Your task to perform on an android device: What's the weather going to be tomorrow? Image 0: 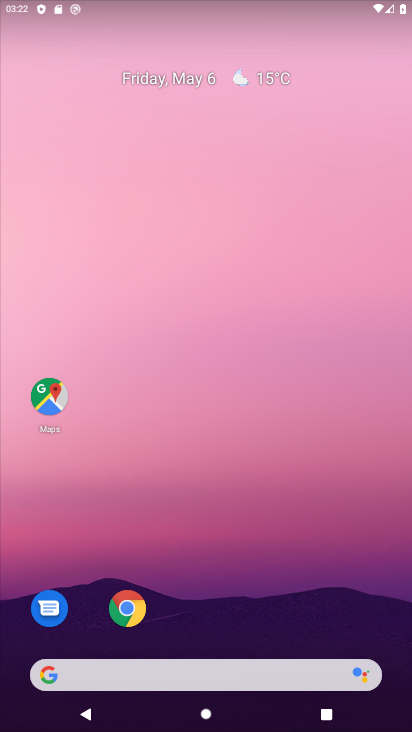
Step 0: click (262, 80)
Your task to perform on an android device: What's the weather going to be tomorrow? Image 1: 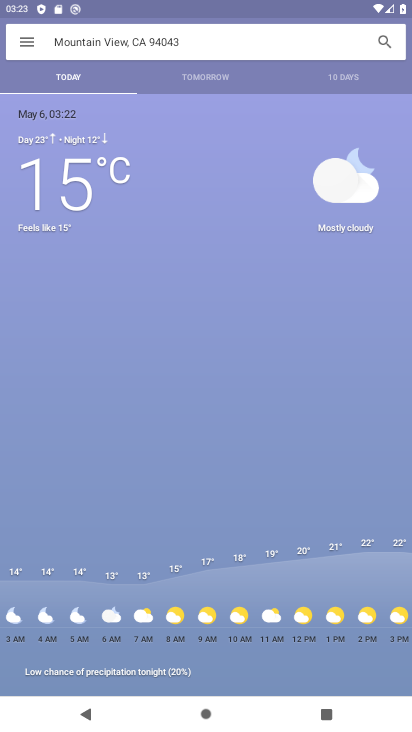
Step 1: click (214, 75)
Your task to perform on an android device: What's the weather going to be tomorrow? Image 2: 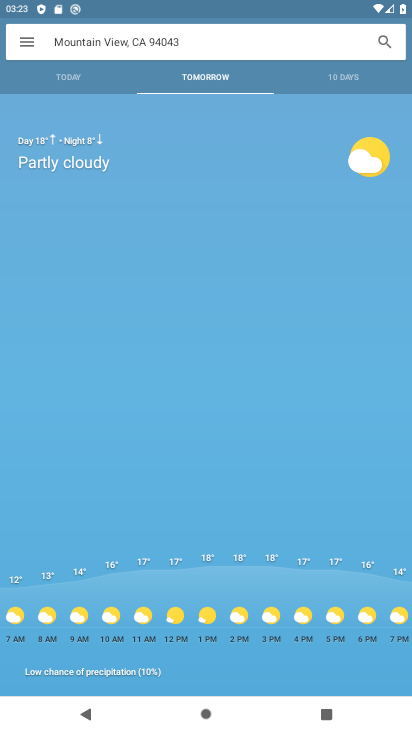
Step 2: task complete